Your task to perform on an android device: find photos in the google photos app Image 0: 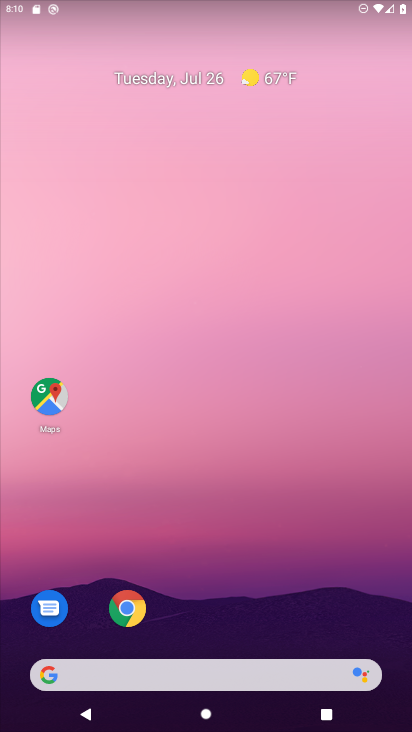
Step 0: drag from (196, 635) to (261, 86)
Your task to perform on an android device: find photos in the google photos app Image 1: 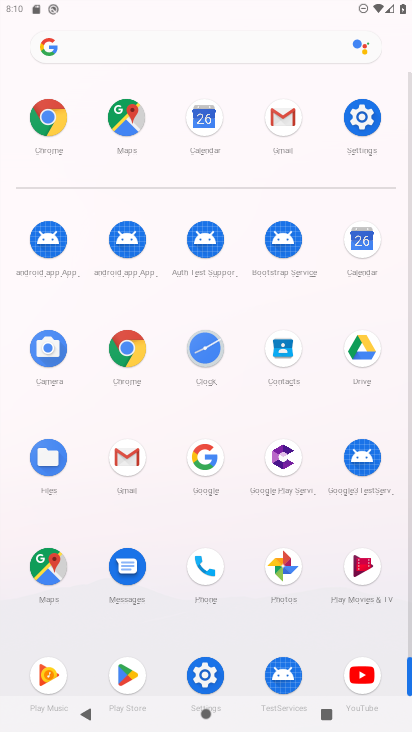
Step 1: click (308, 594)
Your task to perform on an android device: find photos in the google photos app Image 2: 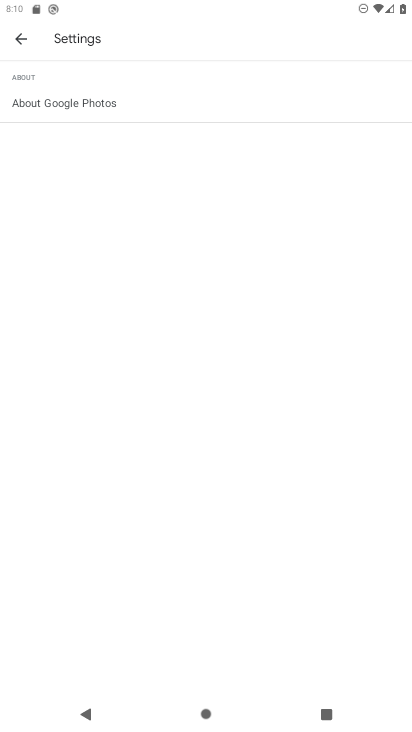
Step 2: click (21, 37)
Your task to perform on an android device: find photos in the google photos app Image 3: 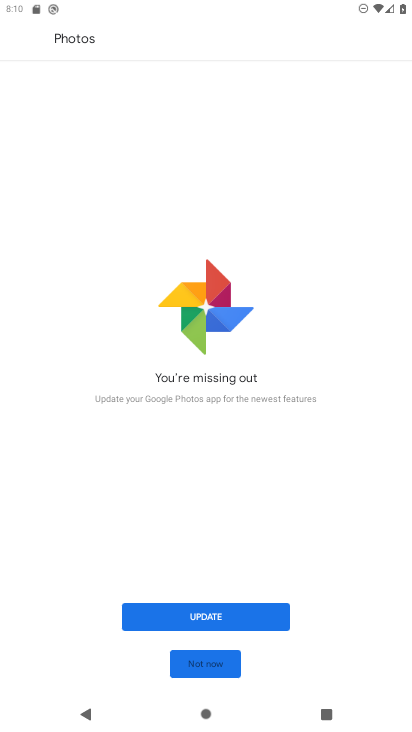
Step 3: click (201, 667)
Your task to perform on an android device: find photos in the google photos app Image 4: 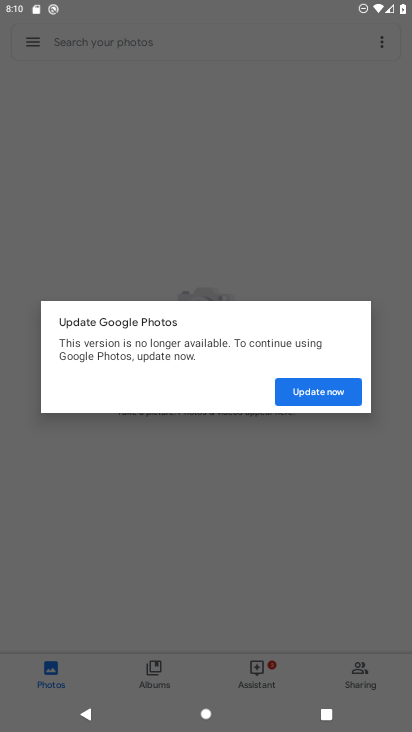
Step 4: click (326, 394)
Your task to perform on an android device: find photos in the google photos app Image 5: 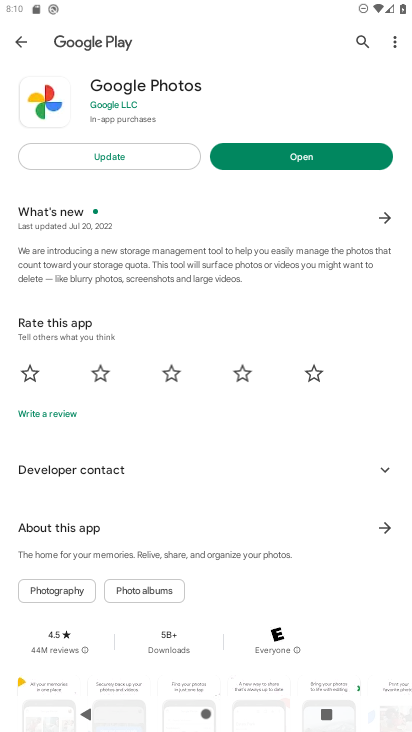
Step 5: click (305, 161)
Your task to perform on an android device: find photos in the google photos app Image 6: 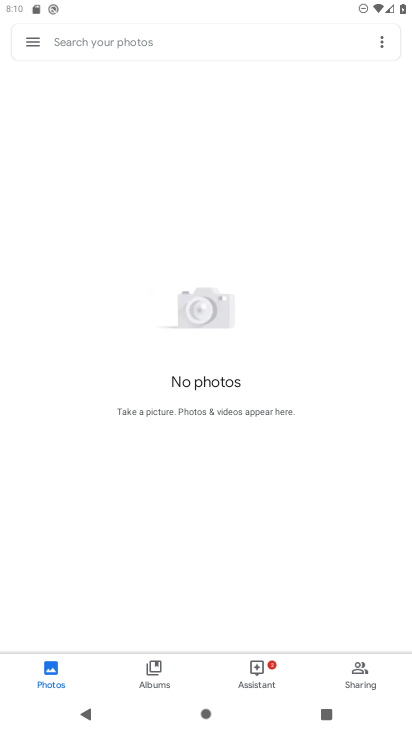
Step 6: task complete